Your task to perform on an android device: How much does a 2 bedroom apartment rent for in New York? Image 0: 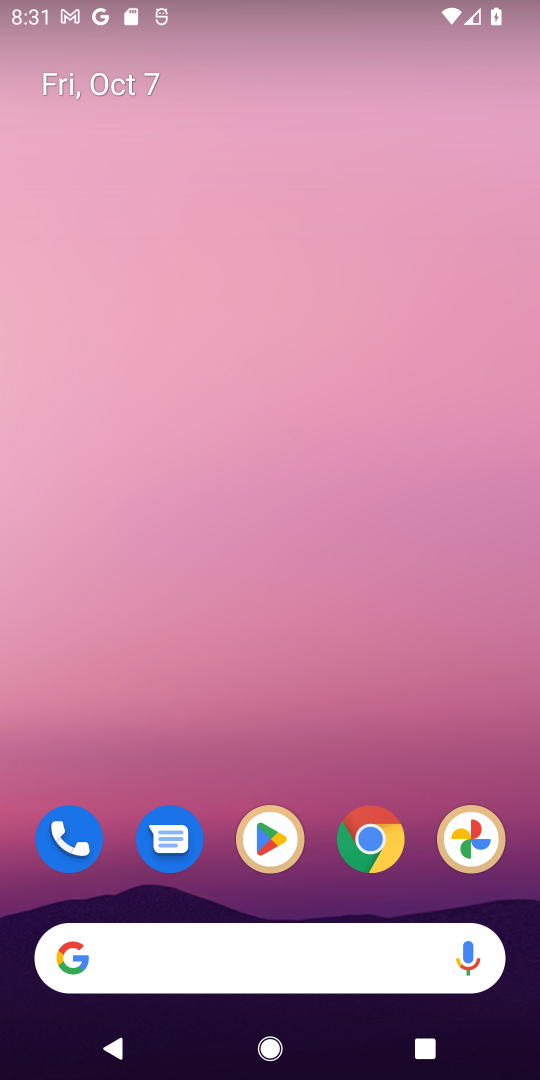
Step 0: click (390, 834)
Your task to perform on an android device: How much does a 2 bedroom apartment rent for in New York? Image 1: 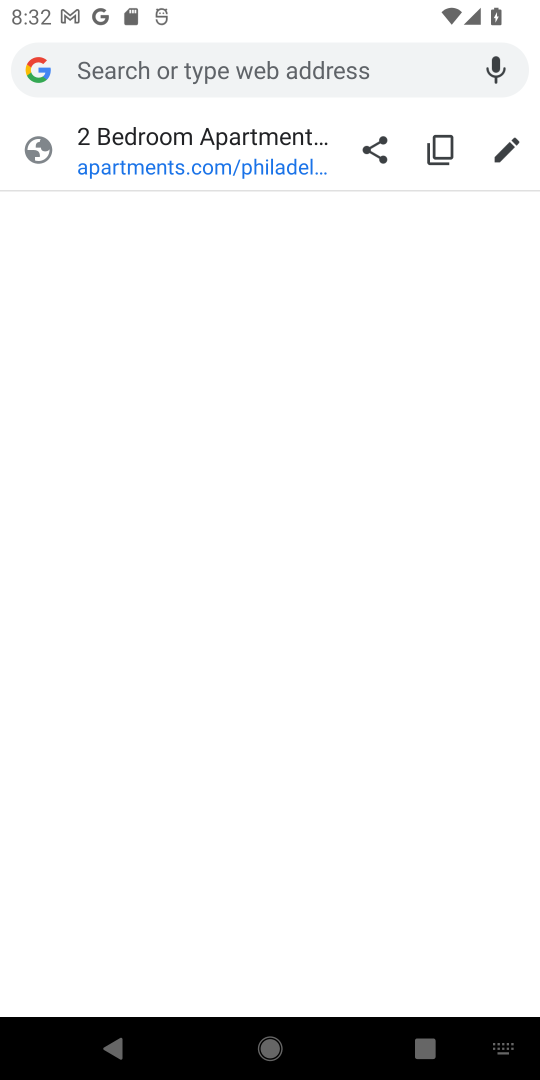
Step 1: type "2 bedroom apartment in new york"
Your task to perform on an android device: How much does a 2 bedroom apartment rent for in New York? Image 2: 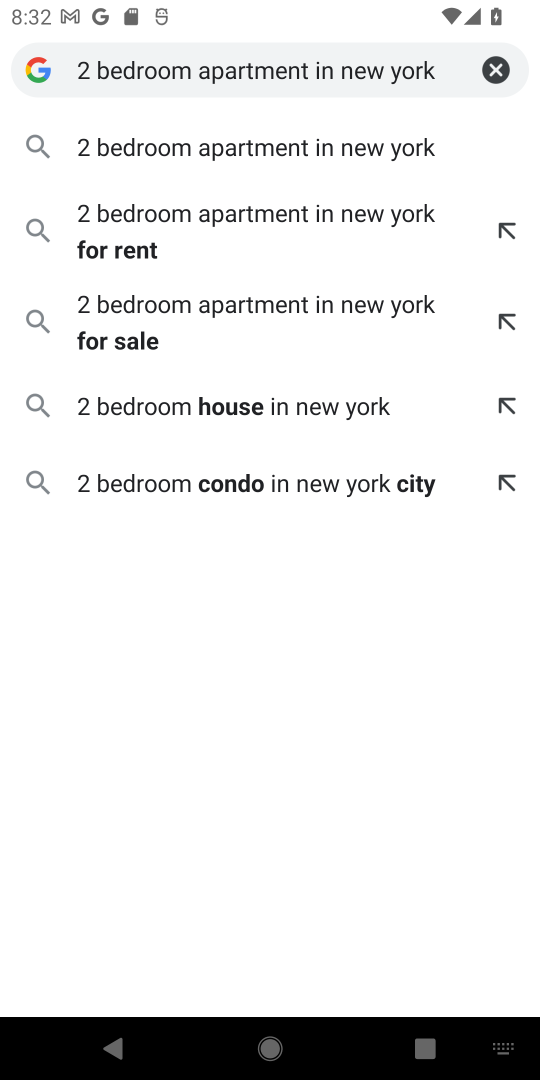
Step 2: click (148, 137)
Your task to perform on an android device: How much does a 2 bedroom apartment rent for in New York? Image 3: 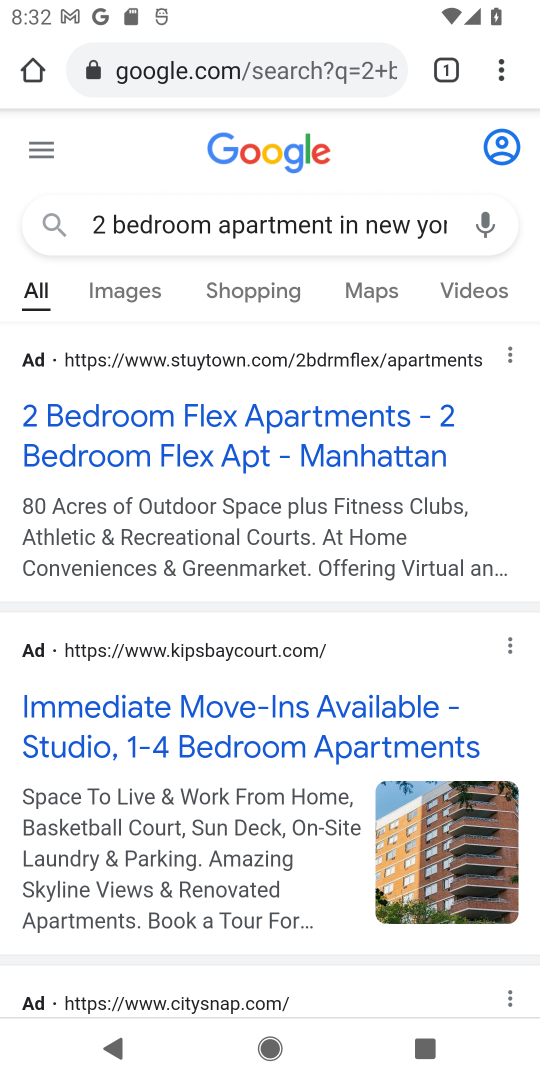
Step 3: drag from (233, 774) to (285, 356)
Your task to perform on an android device: How much does a 2 bedroom apartment rent for in New York? Image 4: 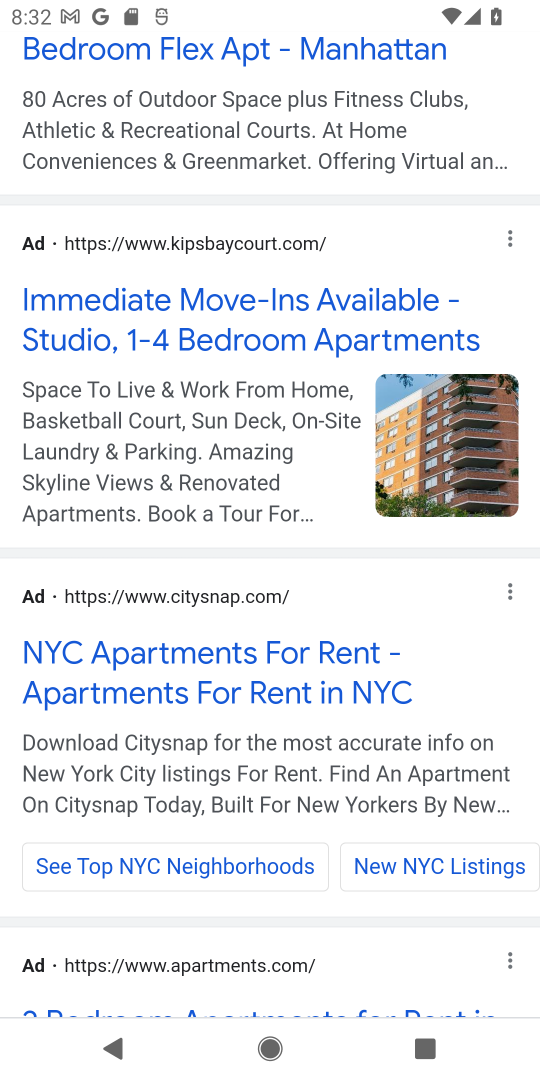
Step 4: drag from (220, 770) to (229, 382)
Your task to perform on an android device: How much does a 2 bedroom apartment rent for in New York? Image 5: 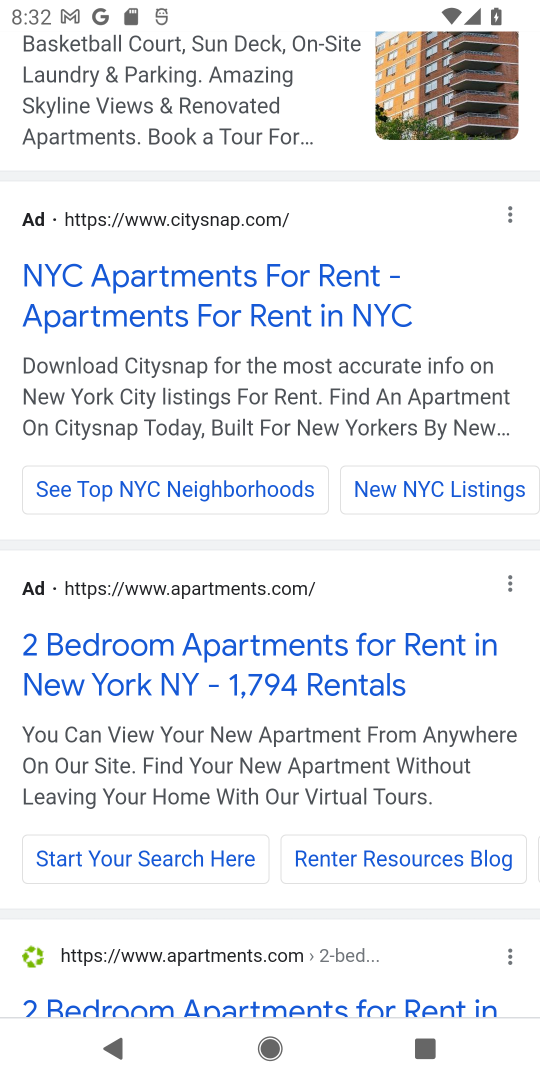
Step 5: click (151, 639)
Your task to perform on an android device: How much does a 2 bedroom apartment rent for in New York? Image 6: 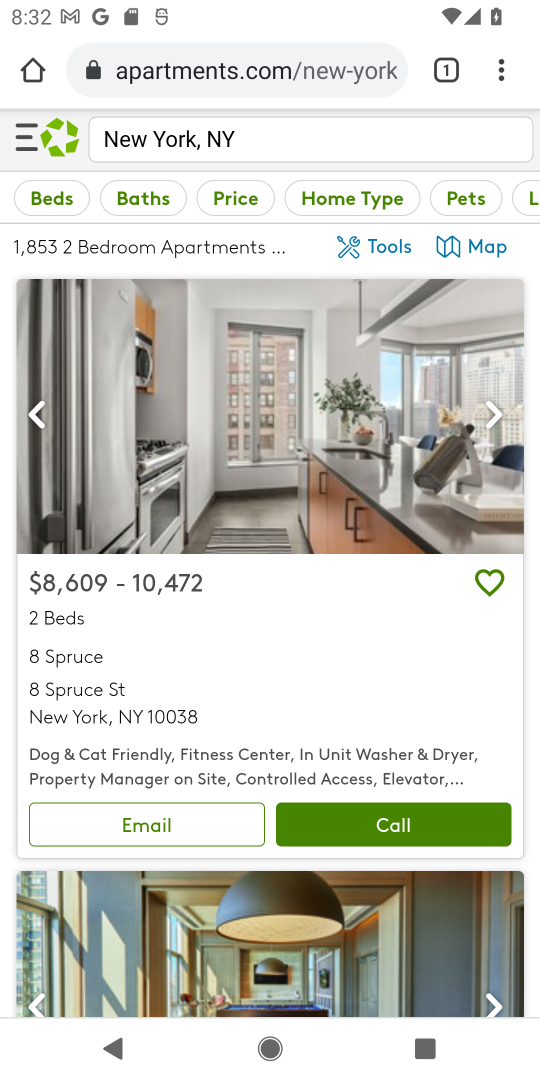
Step 6: task complete